Your task to perform on an android device: Show me popular videos on Youtube Image 0: 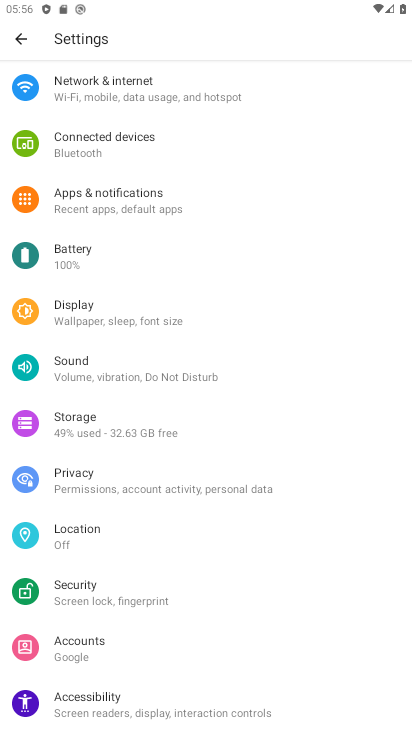
Step 0: press home button
Your task to perform on an android device: Show me popular videos on Youtube Image 1: 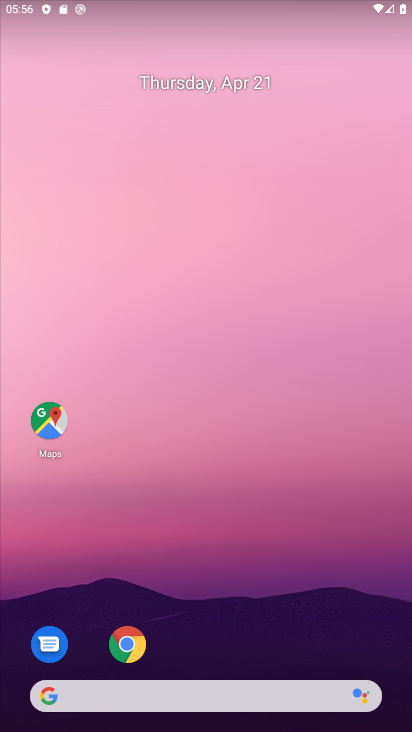
Step 1: drag from (275, 614) to (315, 23)
Your task to perform on an android device: Show me popular videos on Youtube Image 2: 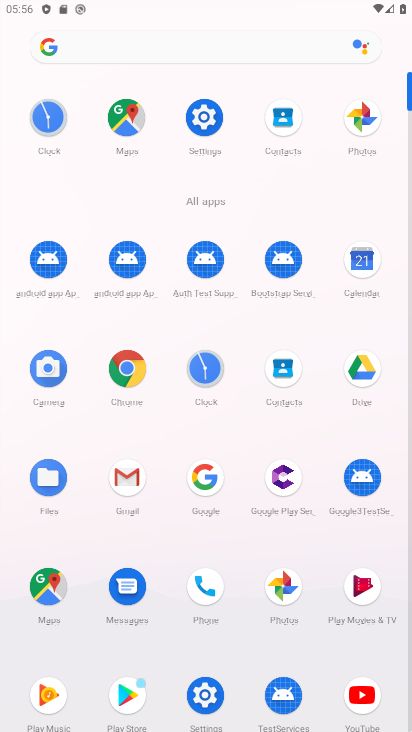
Step 2: click (362, 685)
Your task to perform on an android device: Show me popular videos on Youtube Image 3: 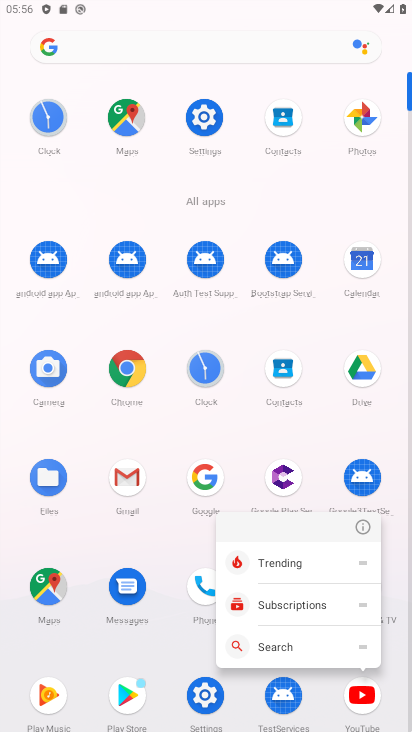
Step 3: click (362, 699)
Your task to perform on an android device: Show me popular videos on Youtube Image 4: 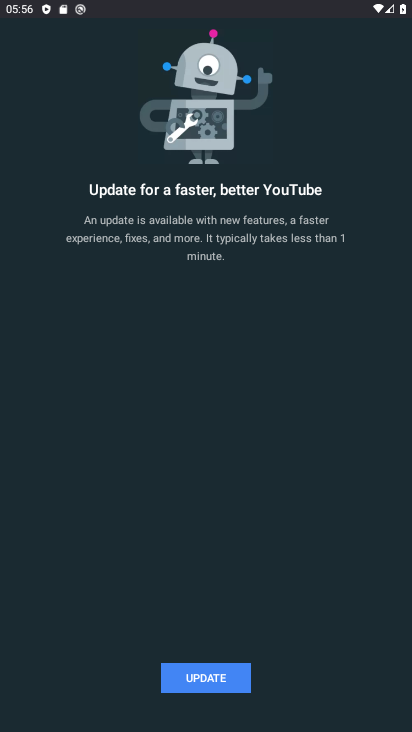
Step 4: click (204, 682)
Your task to perform on an android device: Show me popular videos on Youtube Image 5: 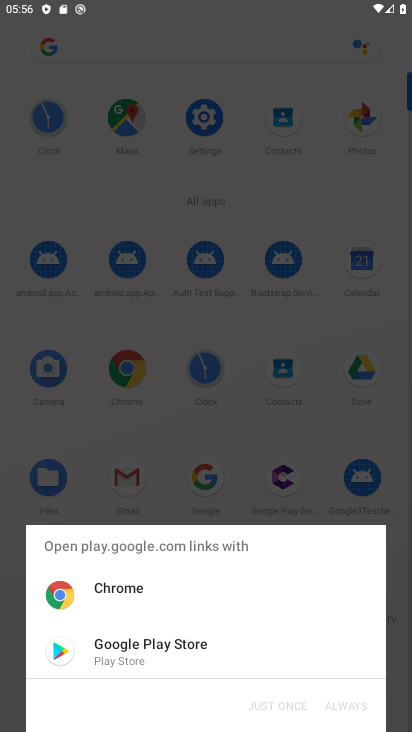
Step 5: click (204, 645)
Your task to perform on an android device: Show me popular videos on Youtube Image 6: 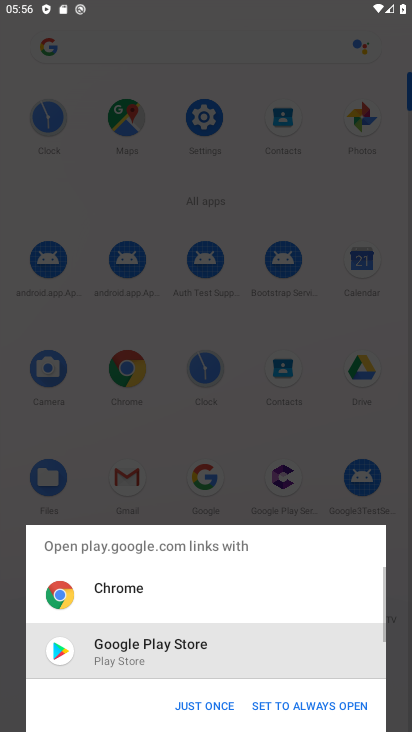
Step 6: click (207, 706)
Your task to perform on an android device: Show me popular videos on Youtube Image 7: 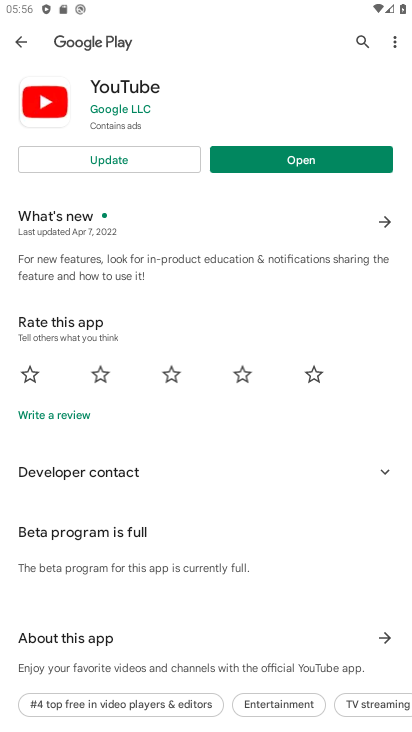
Step 7: click (133, 165)
Your task to perform on an android device: Show me popular videos on Youtube Image 8: 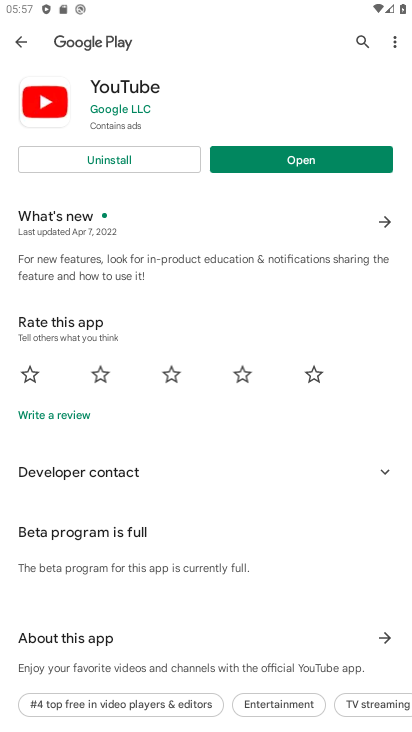
Step 8: click (328, 165)
Your task to perform on an android device: Show me popular videos on Youtube Image 9: 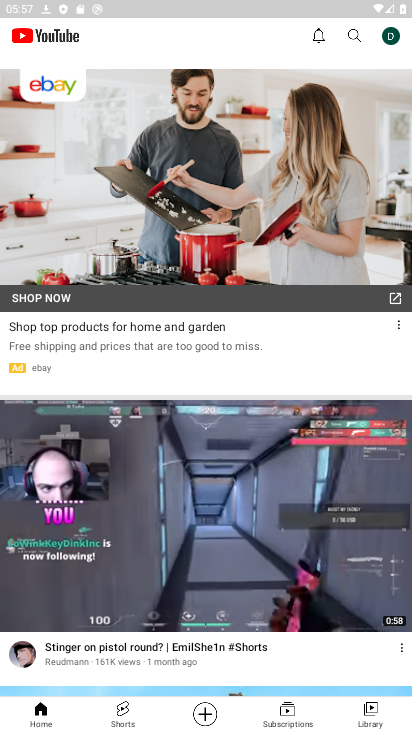
Step 9: click (352, 30)
Your task to perform on an android device: Show me popular videos on Youtube Image 10: 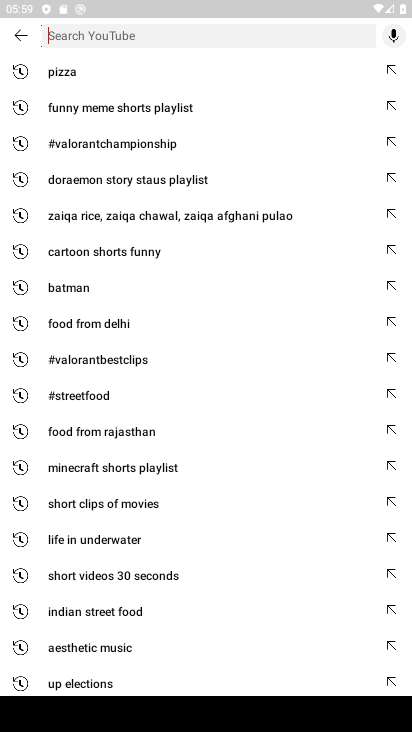
Step 10: type "popular videos"
Your task to perform on an android device: Show me popular videos on Youtube Image 11: 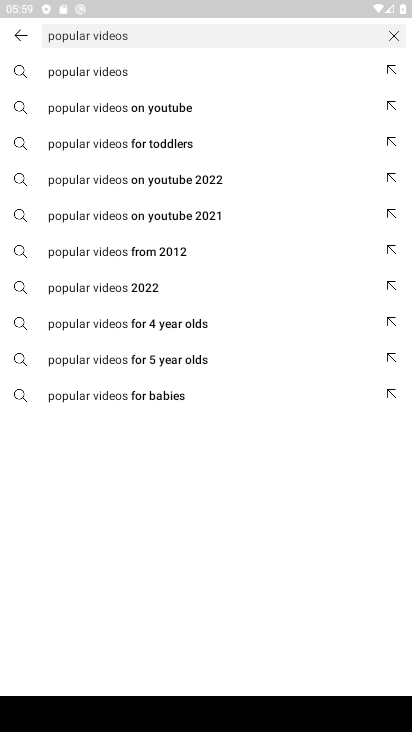
Step 11: click (151, 72)
Your task to perform on an android device: Show me popular videos on Youtube Image 12: 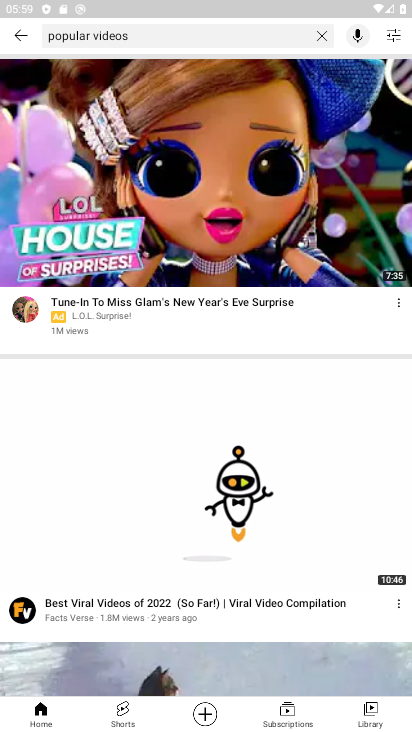
Step 12: task complete